Your task to perform on an android device: Search for pizza restaurants on Maps Image 0: 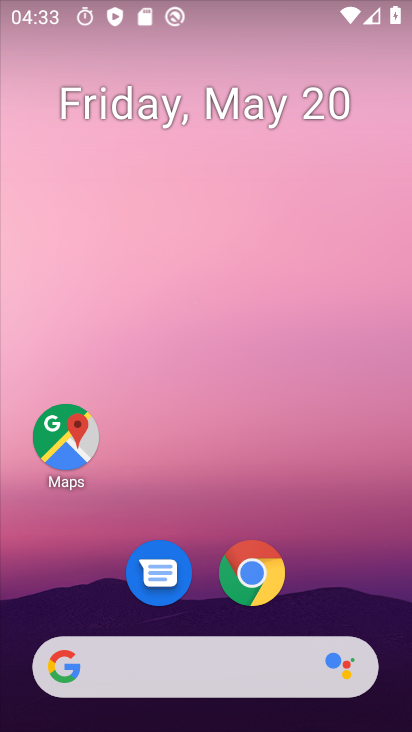
Step 0: drag from (382, 682) to (149, 38)
Your task to perform on an android device: Search for pizza restaurants on Maps Image 1: 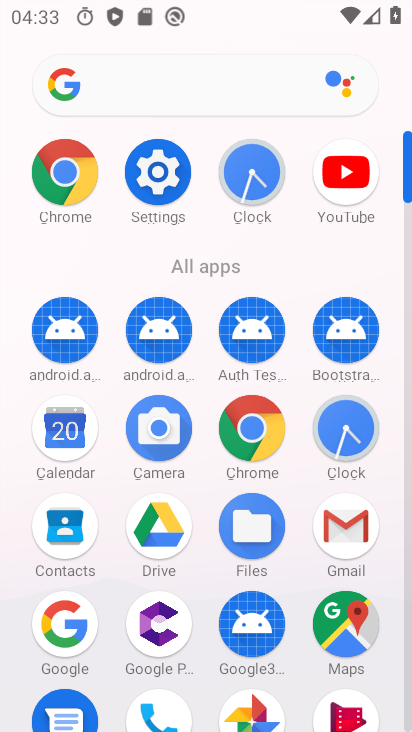
Step 1: drag from (277, 454) to (224, 93)
Your task to perform on an android device: Search for pizza restaurants on Maps Image 2: 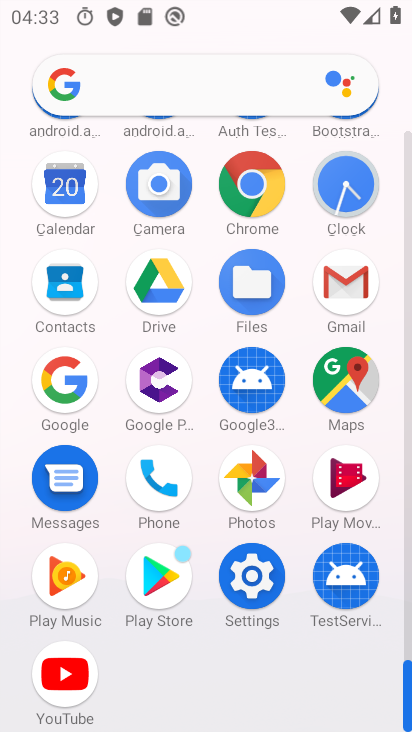
Step 2: drag from (293, 520) to (232, 192)
Your task to perform on an android device: Search for pizza restaurants on Maps Image 3: 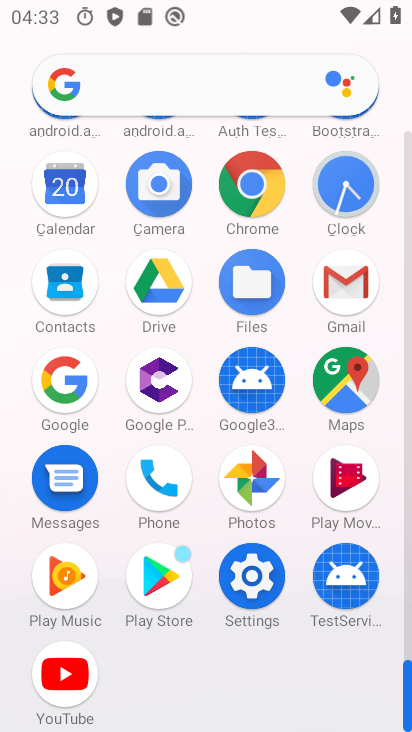
Step 3: click (352, 380)
Your task to perform on an android device: Search for pizza restaurants on Maps Image 4: 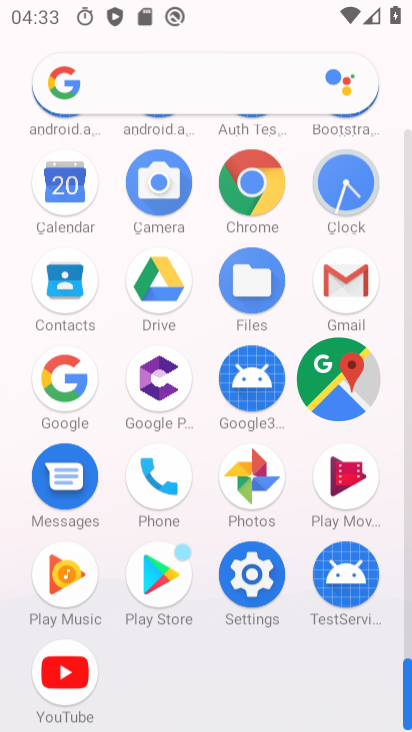
Step 4: click (352, 380)
Your task to perform on an android device: Search for pizza restaurants on Maps Image 5: 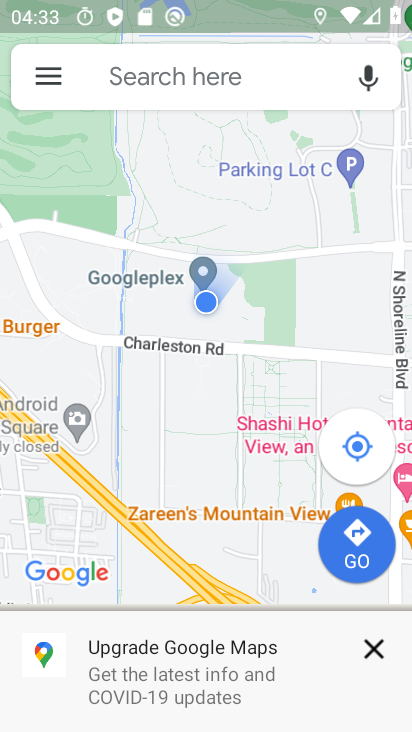
Step 5: click (118, 79)
Your task to perform on an android device: Search for pizza restaurants on Maps Image 6: 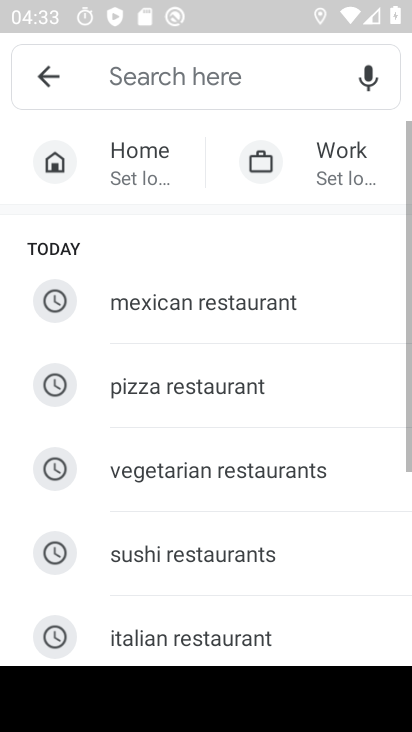
Step 6: click (180, 399)
Your task to perform on an android device: Search for pizza restaurants on Maps Image 7: 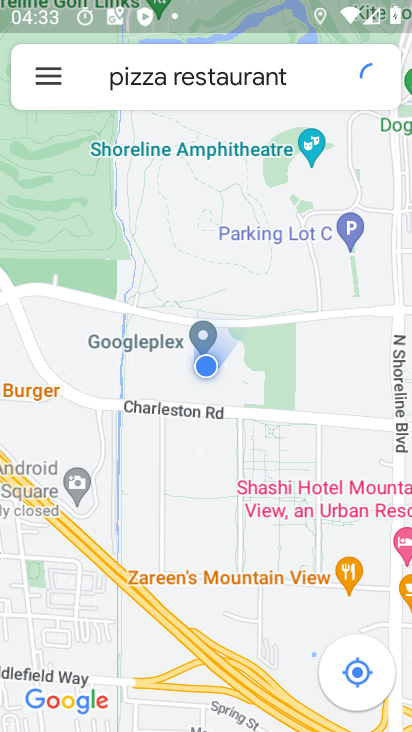
Step 7: task complete